Your task to perform on an android device: Find coffee shops on Maps Image 0: 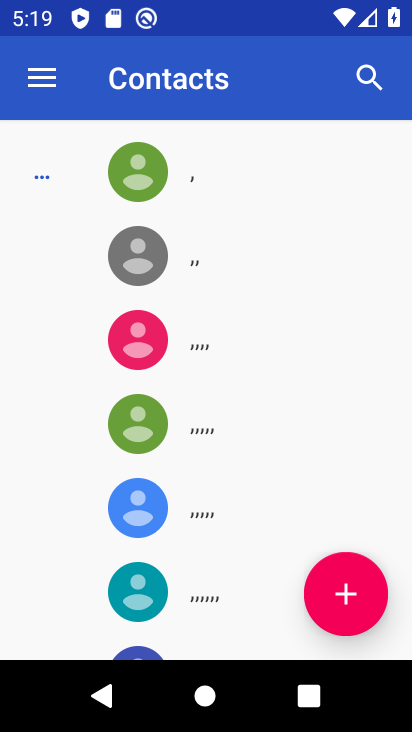
Step 0: press home button
Your task to perform on an android device: Find coffee shops on Maps Image 1: 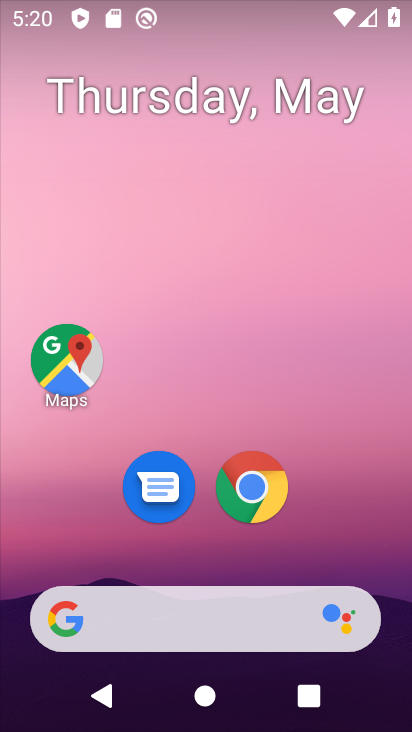
Step 1: click (63, 363)
Your task to perform on an android device: Find coffee shops on Maps Image 2: 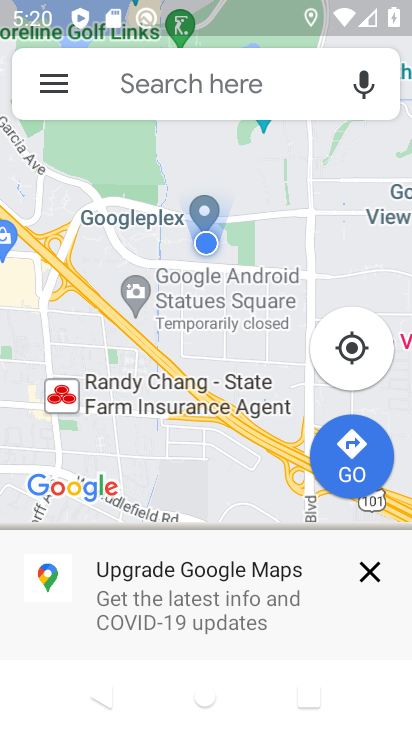
Step 2: click (152, 80)
Your task to perform on an android device: Find coffee shops on Maps Image 3: 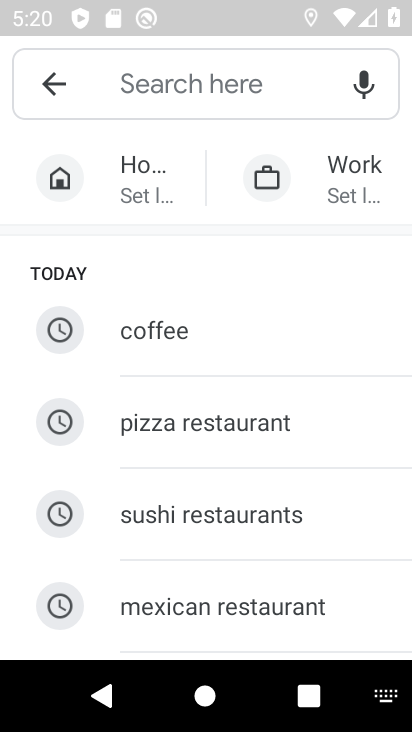
Step 3: click (165, 320)
Your task to perform on an android device: Find coffee shops on Maps Image 4: 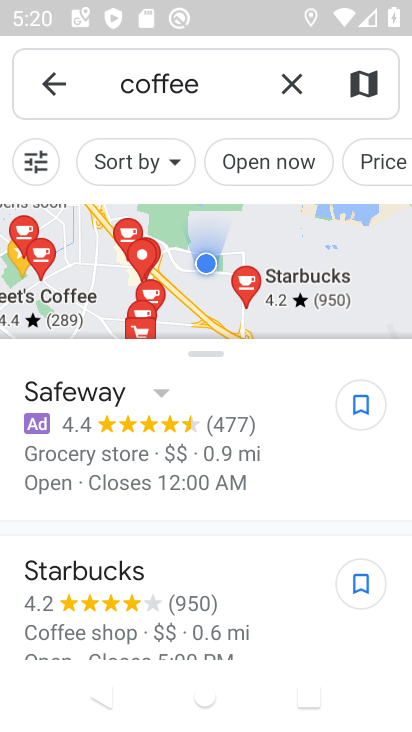
Step 4: task complete